Your task to perform on an android device: What's on my calendar tomorrow? Image 0: 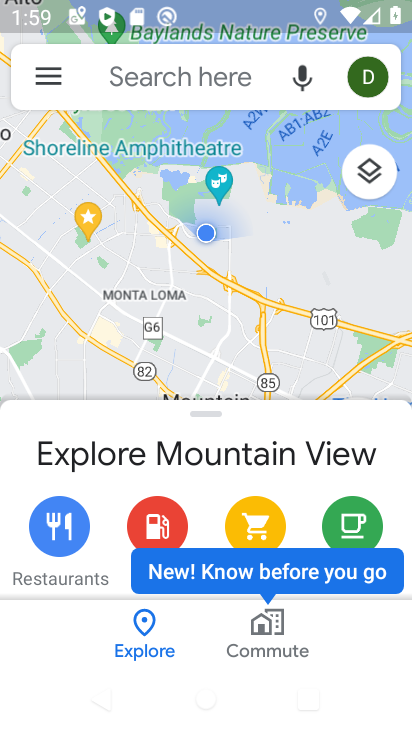
Step 0: press home button
Your task to perform on an android device: What's on my calendar tomorrow? Image 1: 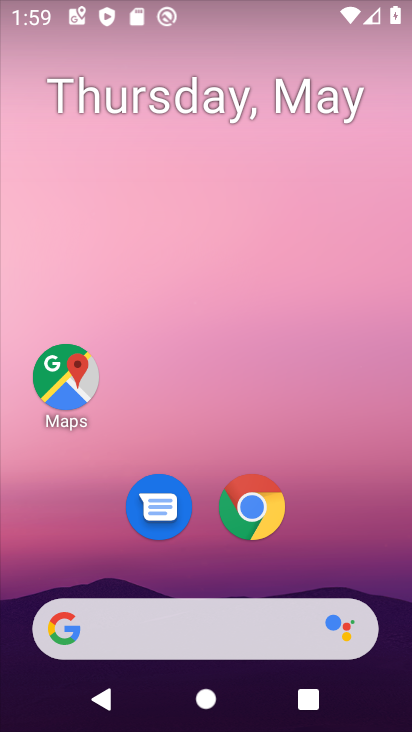
Step 1: drag from (178, 651) to (327, 0)
Your task to perform on an android device: What's on my calendar tomorrow? Image 2: 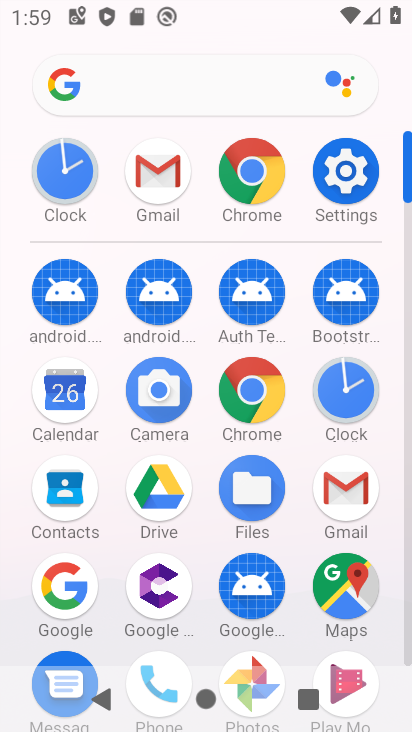
Step 2: click (75, 416)
Your task to perform on an android device: What's on my calendar tomorrow? Image 3: 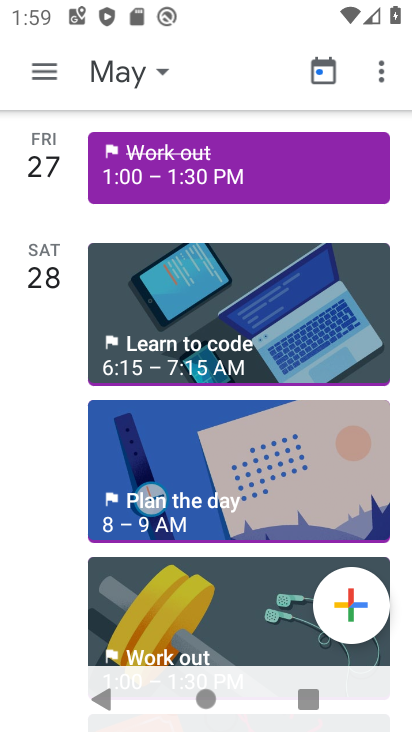
Step 3: click (149, 71)
Your task to perform on an android device: What's on my calendar tomorrow? Image 4: 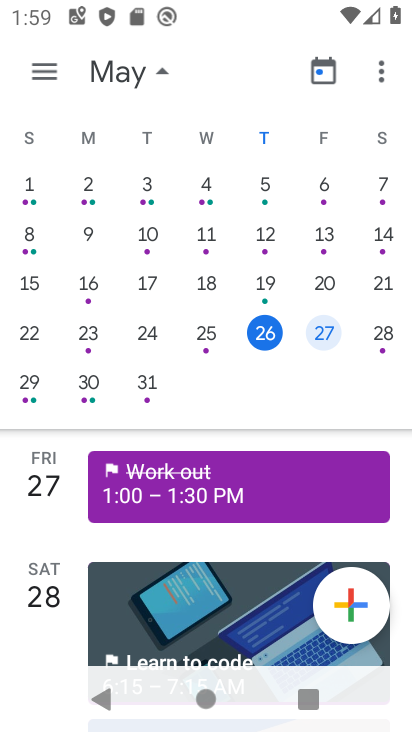
Step 4: click (328, 326)
Your task to perform on an android device: What's on my calendar tomorrow? Image 5: 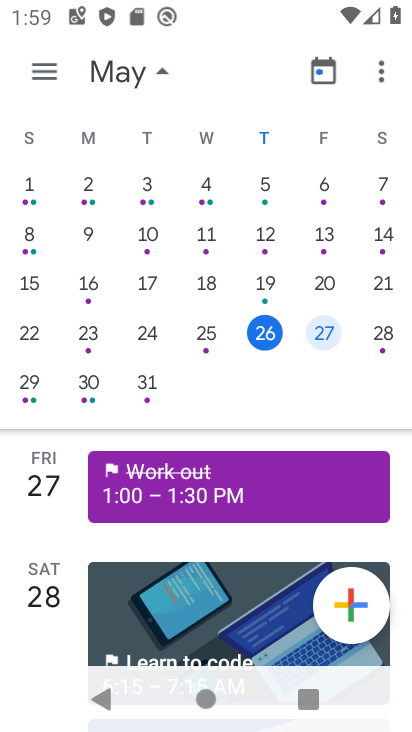
Step 5: task complete